Your task to perform on an android device: Open calendar and show me the third week of next month Image 0: 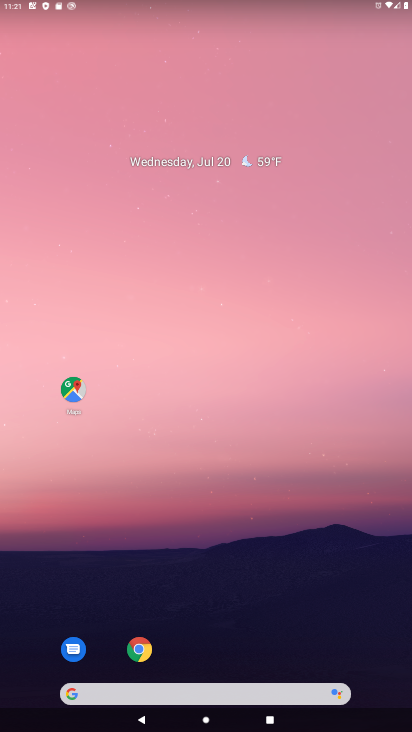
Step 0: drag from (167, 660) to (215, 142)
Your task to perform on an android device: Open calendar and show me the third week of next month Image 1: 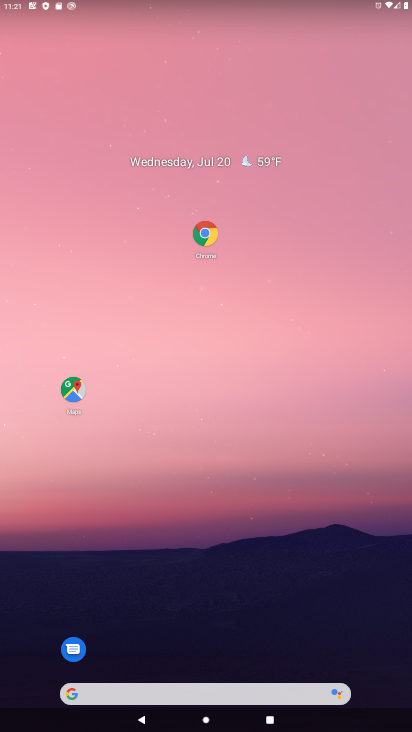
Step 1: drag from (259, 630) to (277, 80)
Your task to perform on an android device: Open calendar and show me the third week of next month Image 2: 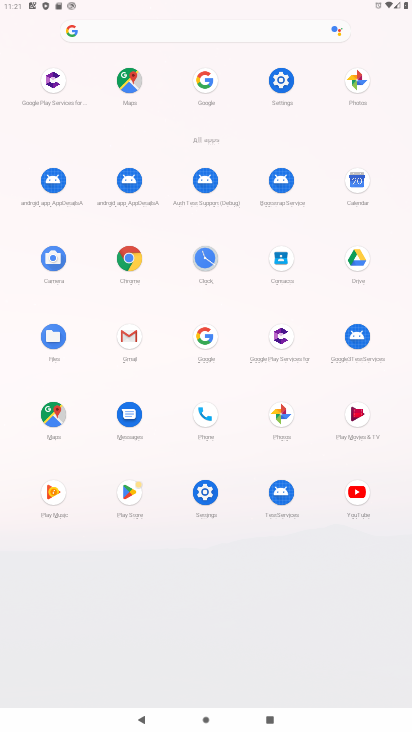
Step 2: click (358, 181)
Your task to perform on an android device: Open calendar and show me the third week of next month Image 3: 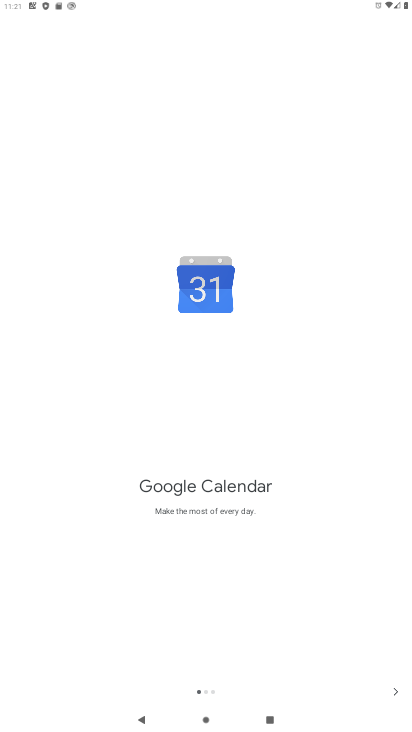
Step 3: click (395, 696)
Your task to perform on an android device: Open calendar and show me the third week of next month Image 4: 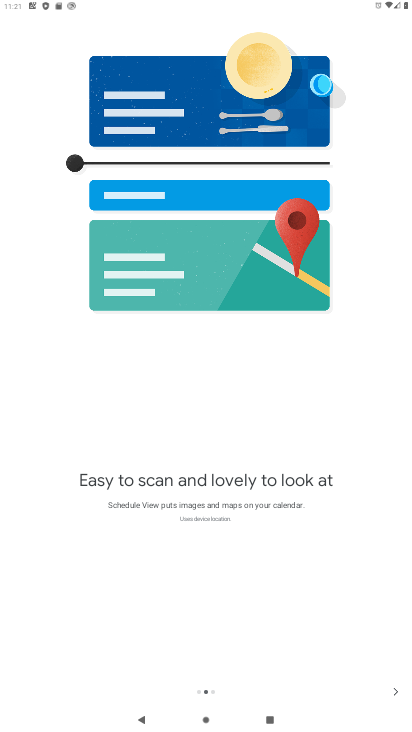
Step 4: click (395, 696)
Your task to perform on an android device: Open calendar and show me the third week of next month Image 5: 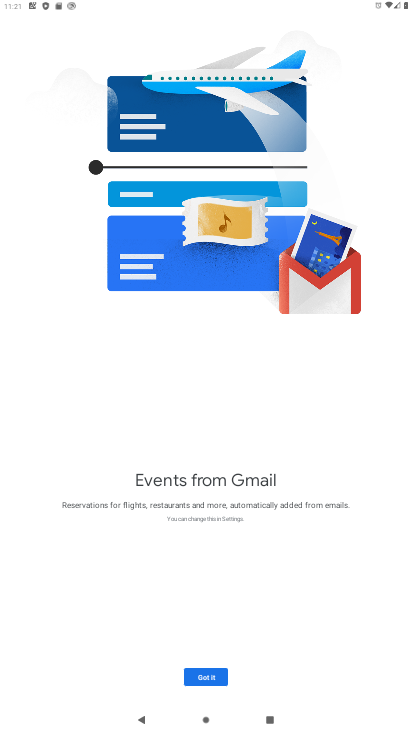
Step 5: click (216, 676)
Your task to perform on an android device: Open calendar and show me the third week of next month Image 6: 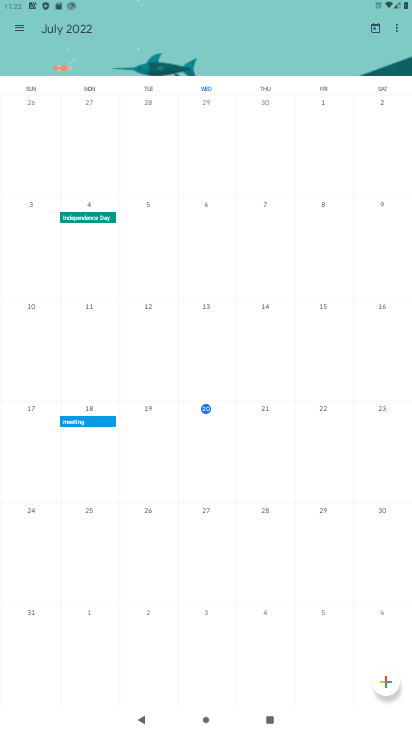
Step 6: drag from (405, 544) to (10, 527)
Your task to perform on an android device: Open calendar and show me the third week of next month Image 7: 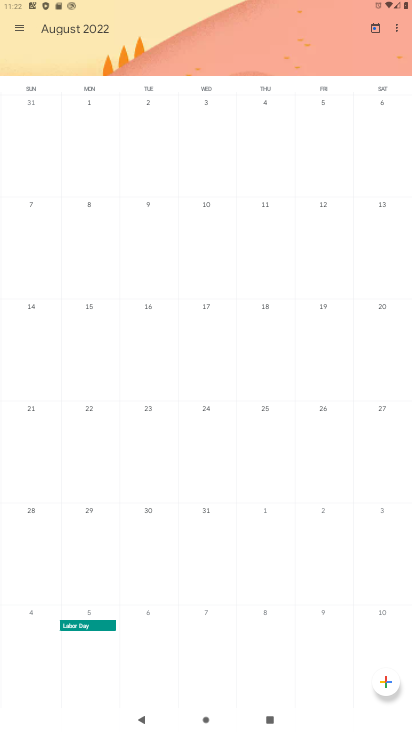
Step 7: click (266, 310)
Your task to perform on an android device: Open calendar and show me the third week of next month Image 8: 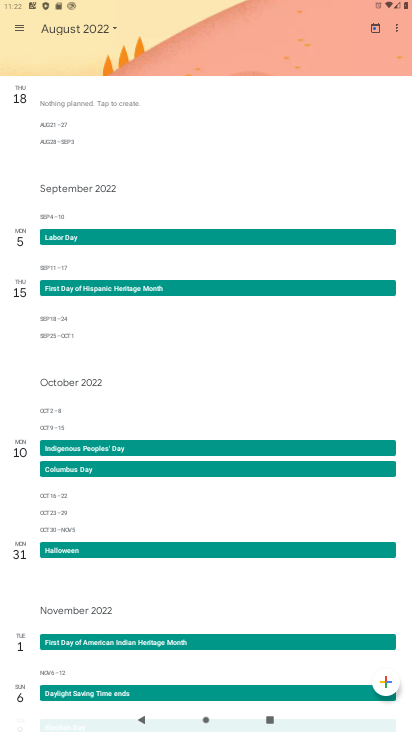
Step 8: task complete